Your task to perform on an android device: turn on improve location accuracy Image 0: 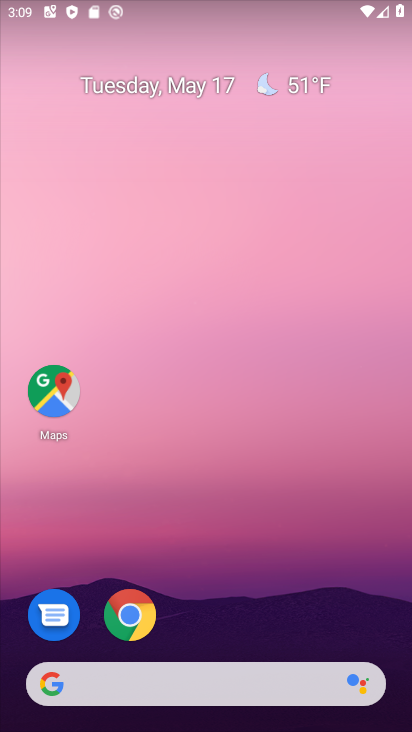
Step 0: press home button
Your task to perform on an android device: turn on improve location accuracy Image 1: 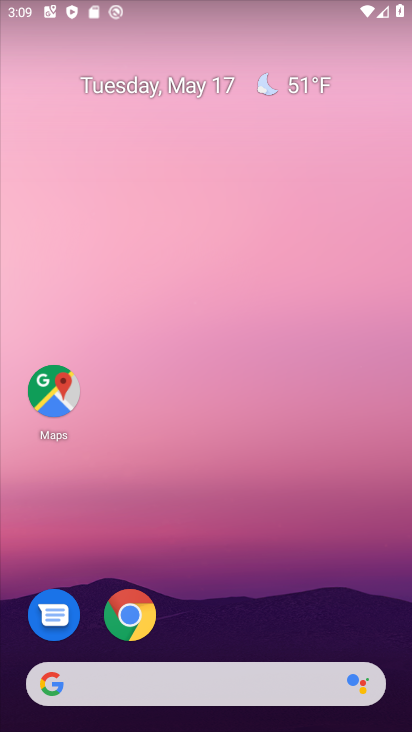
Step 1: drag from (229, 637) to (243, 166)
Your task to perform on an android device: turn on improve location accuracy Image 2: 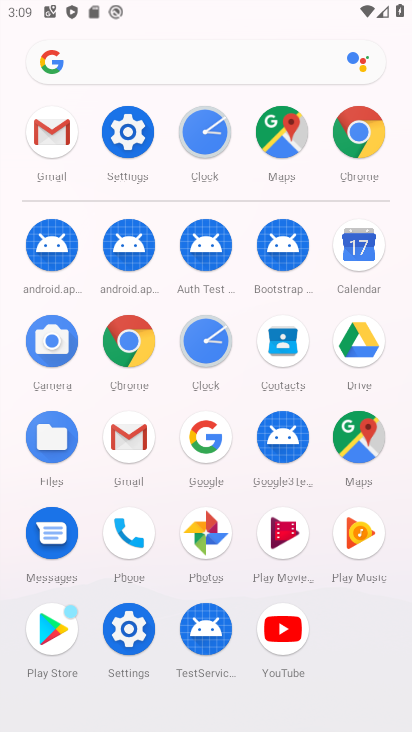
Step 2: click (125, 621)
Your task to perform on an android device: turn on improve location accuracy Image 3: 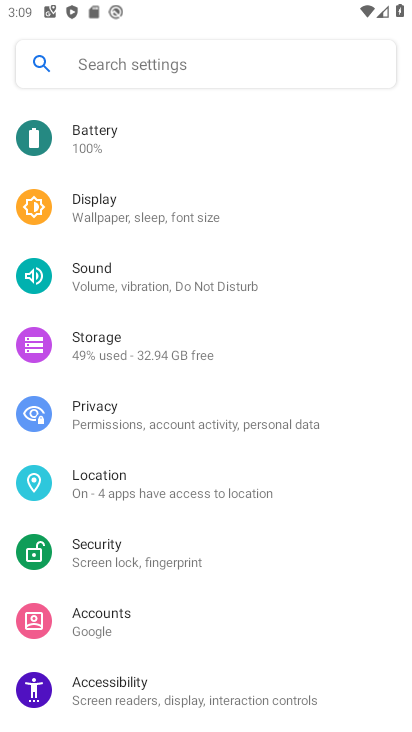
Step 3: click (132, 484)
Your task to perform on an android device: turn on improve location accuracy Image 4: 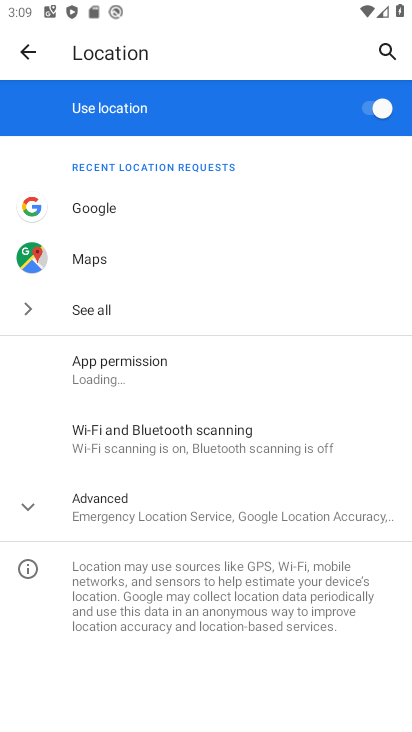
Step 4: click (85, 501)
Your task to perform on an android device: turn on improve location accuracy Image 5: 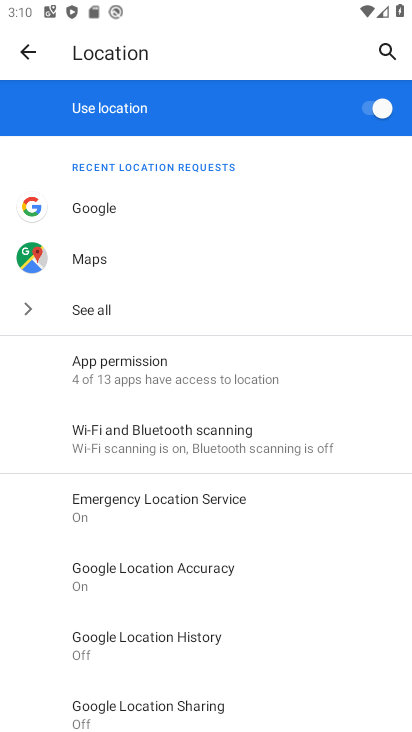
Step 5: click (112, 574)
Your task to perform on an android device: turn on improve location accuracy Image 6: 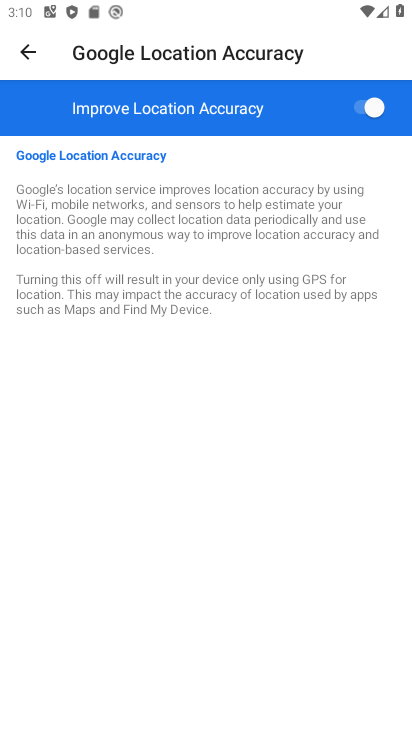
Step 6: task complete